Your task to perform on an android device: Open Yahoo.com Image 0: 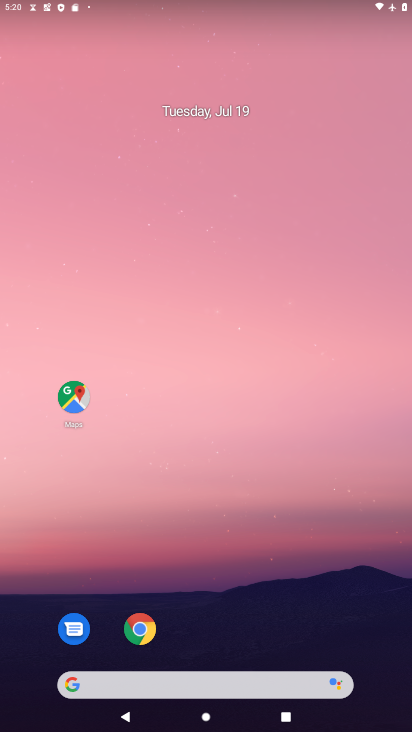
Step 0: press home button
Your task to perform on an android device: Open Yahoo.com Image 1: 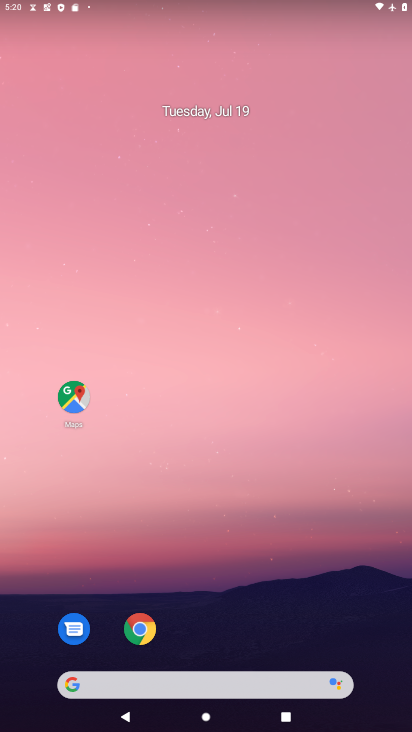
Step 1: click (68, 679)
Your task to perform on an android device: Open Yahoo.com Image 2: 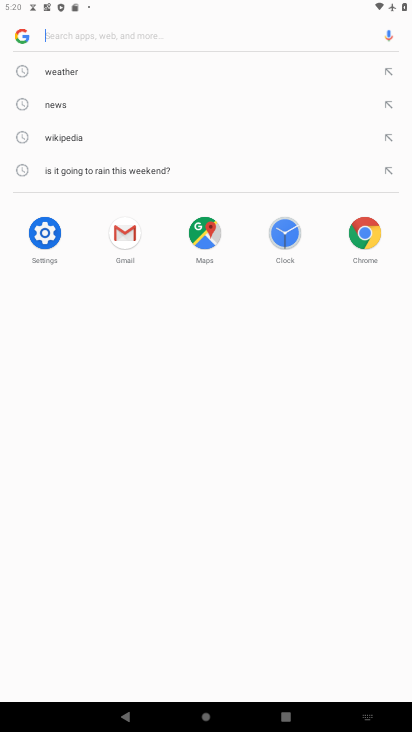
Step 2: type "Yahoo.com"
Your task to perform on an android device: Open Yahoo.com Image 3: 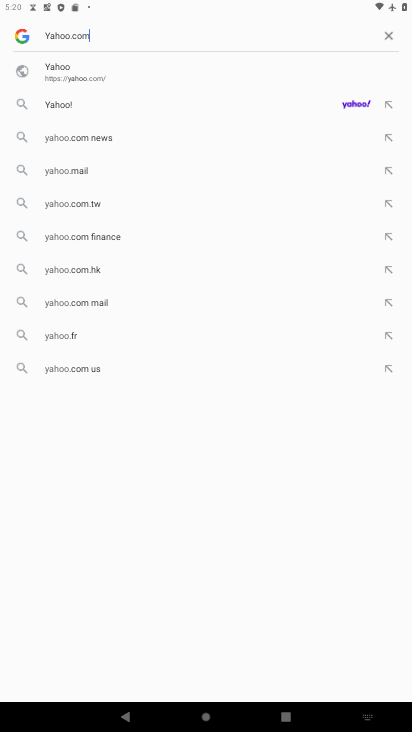
Step 3: press enter
Your task to perform on an android device: Open Yahoo.com Image 4: 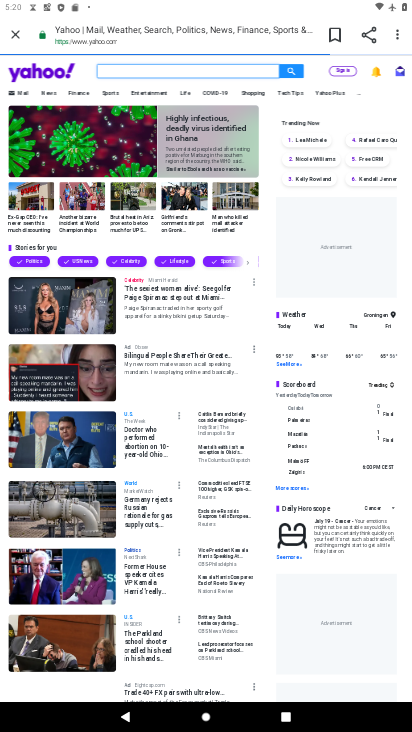
Step 4: task complete